Your task to perform on an android device: What is the recent news? Image 0: 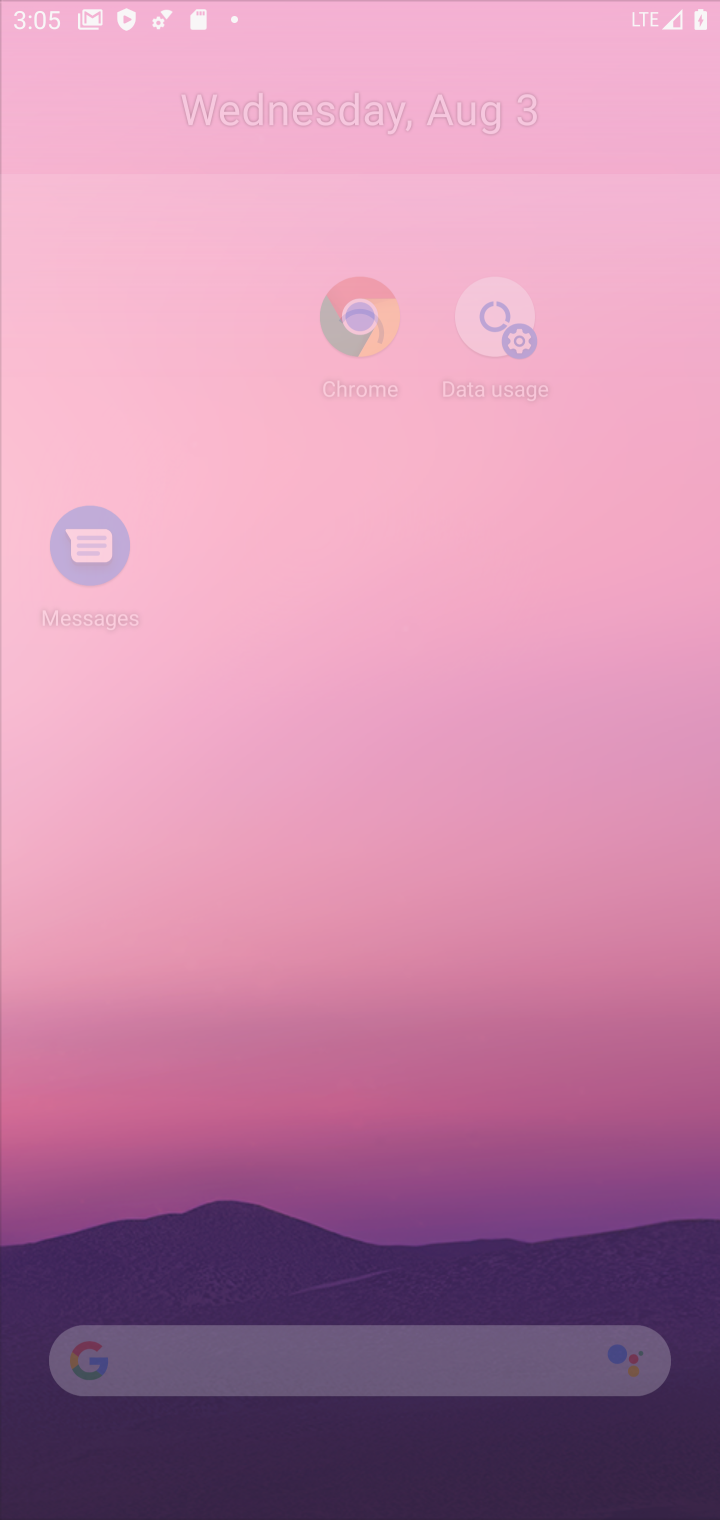
Step 0: press back button
Your task to perform on an android device: What is the recent news? Image 1: 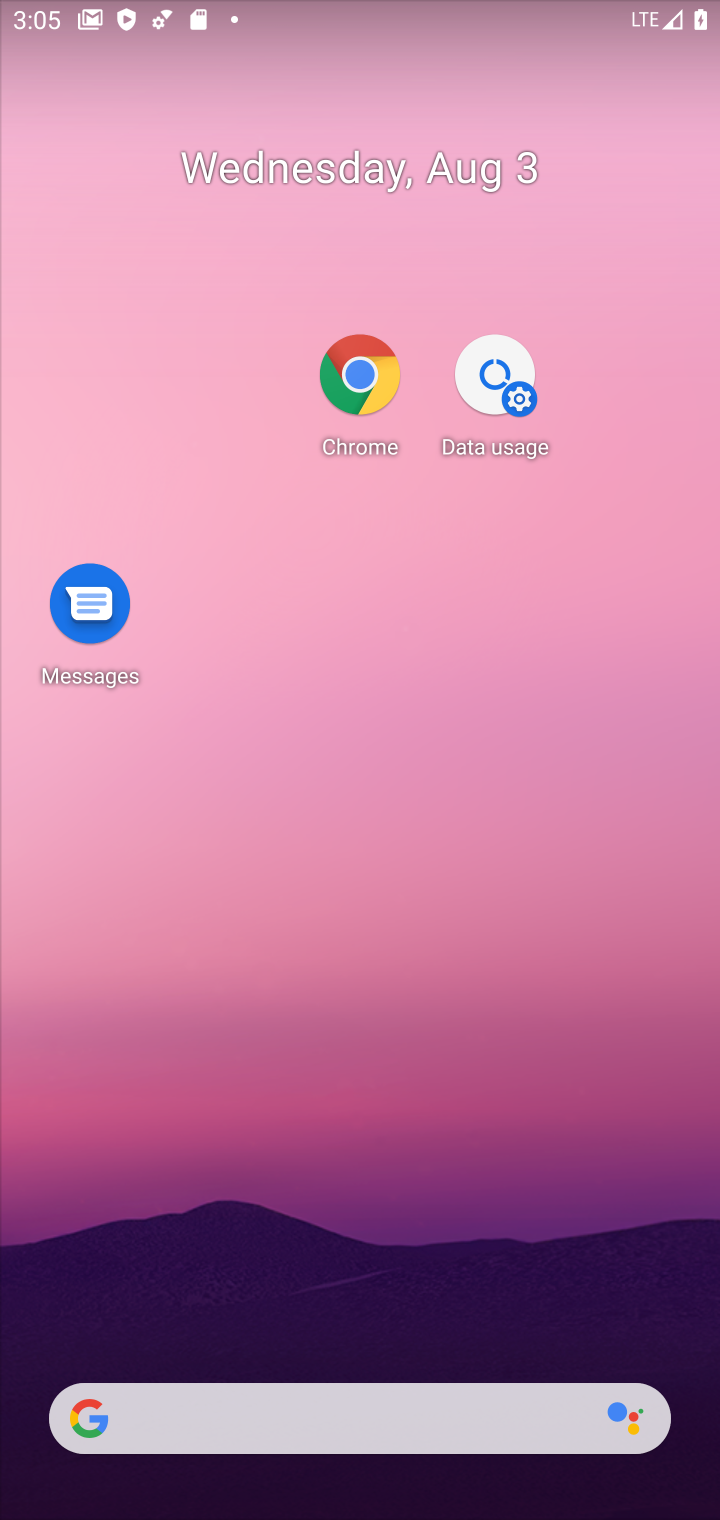
Step 1: drag from (279, 1172) to (215, 809)
Your task to perform on an android device: What is the recent news? Image 2: 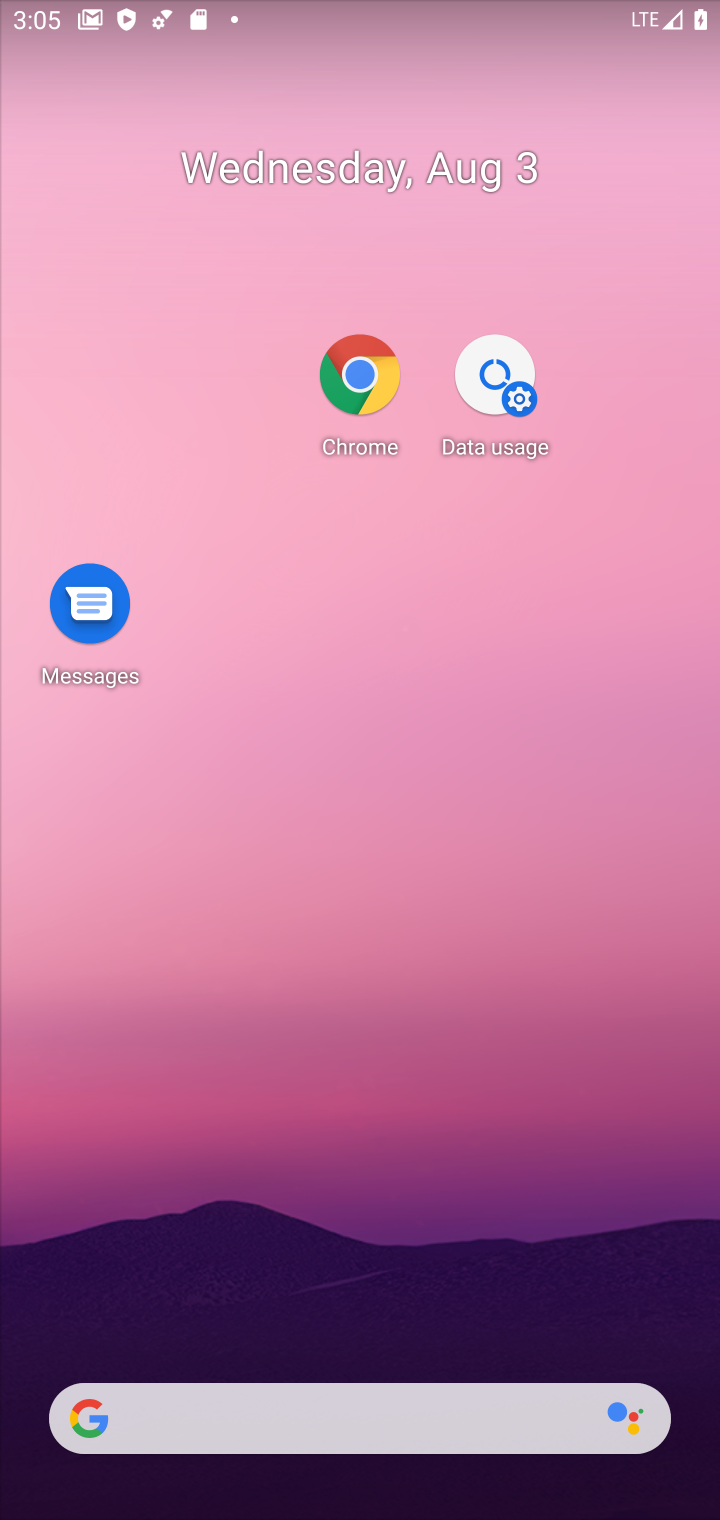
Step 2: drag from (304, 1319) to (134, 155)
Your task to perform on an android device: What is the recent news? Image 3: 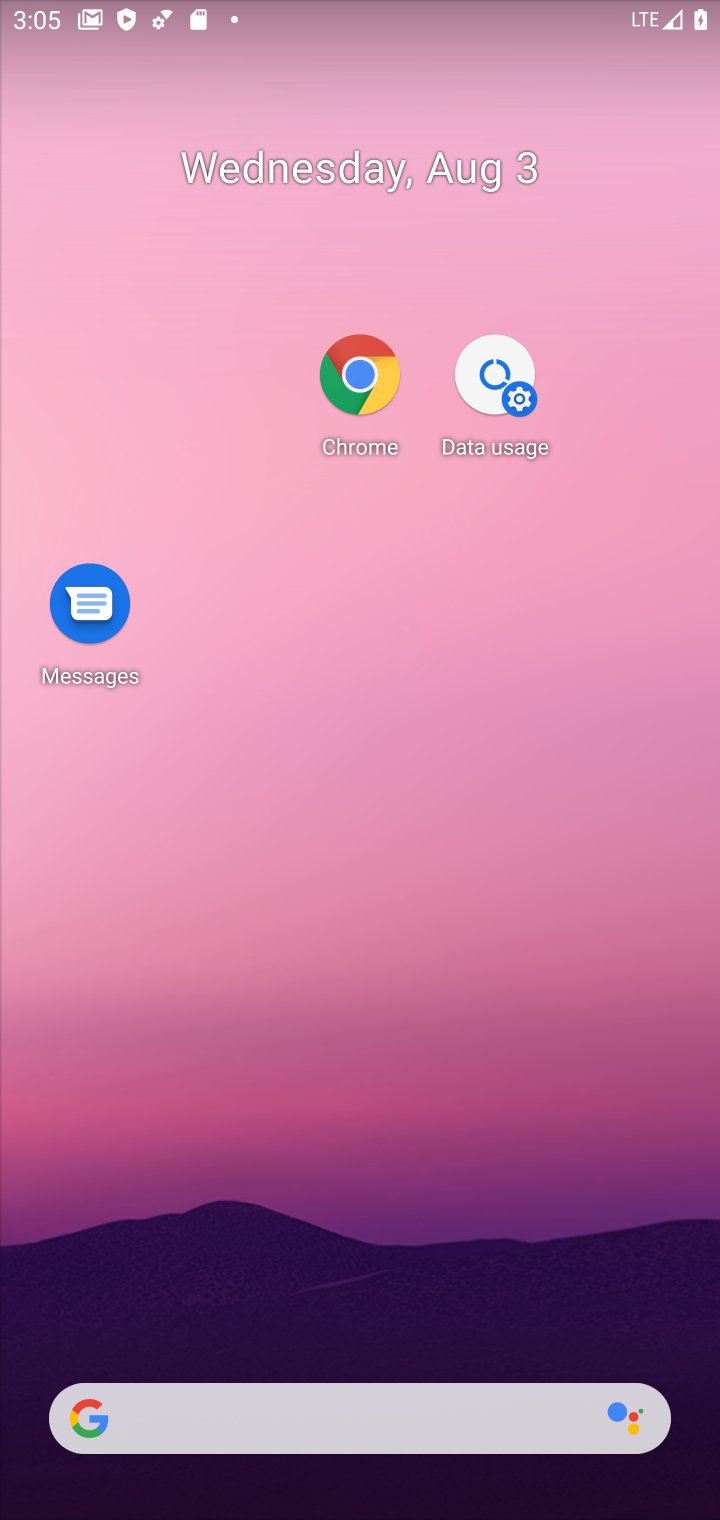
Step 3: drag from (319, 415) to (293, 242)
Your task to perform on an android device: What is the recent news? Image 4: 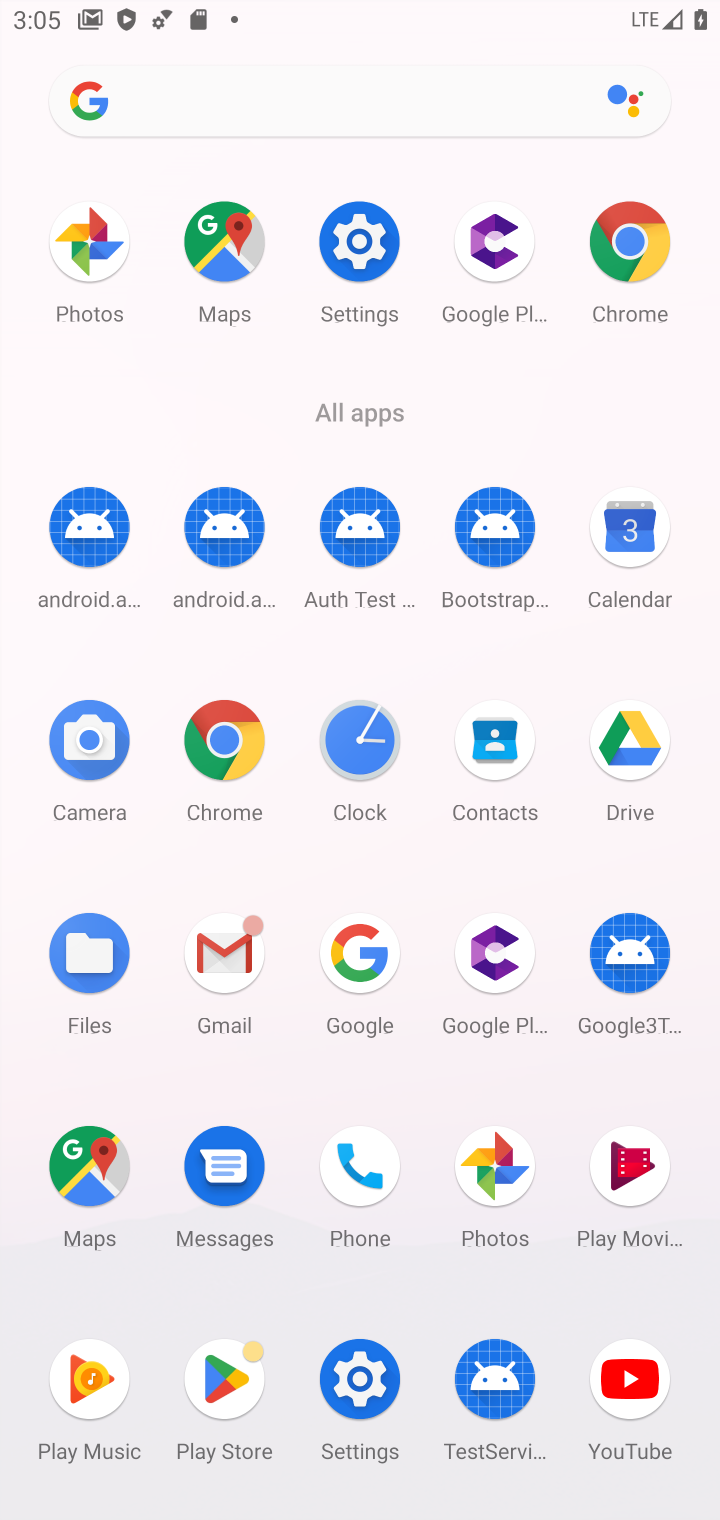
Step 4: click (599, 218)
Your task to perform on an android device: What is the recent news? Image 5: 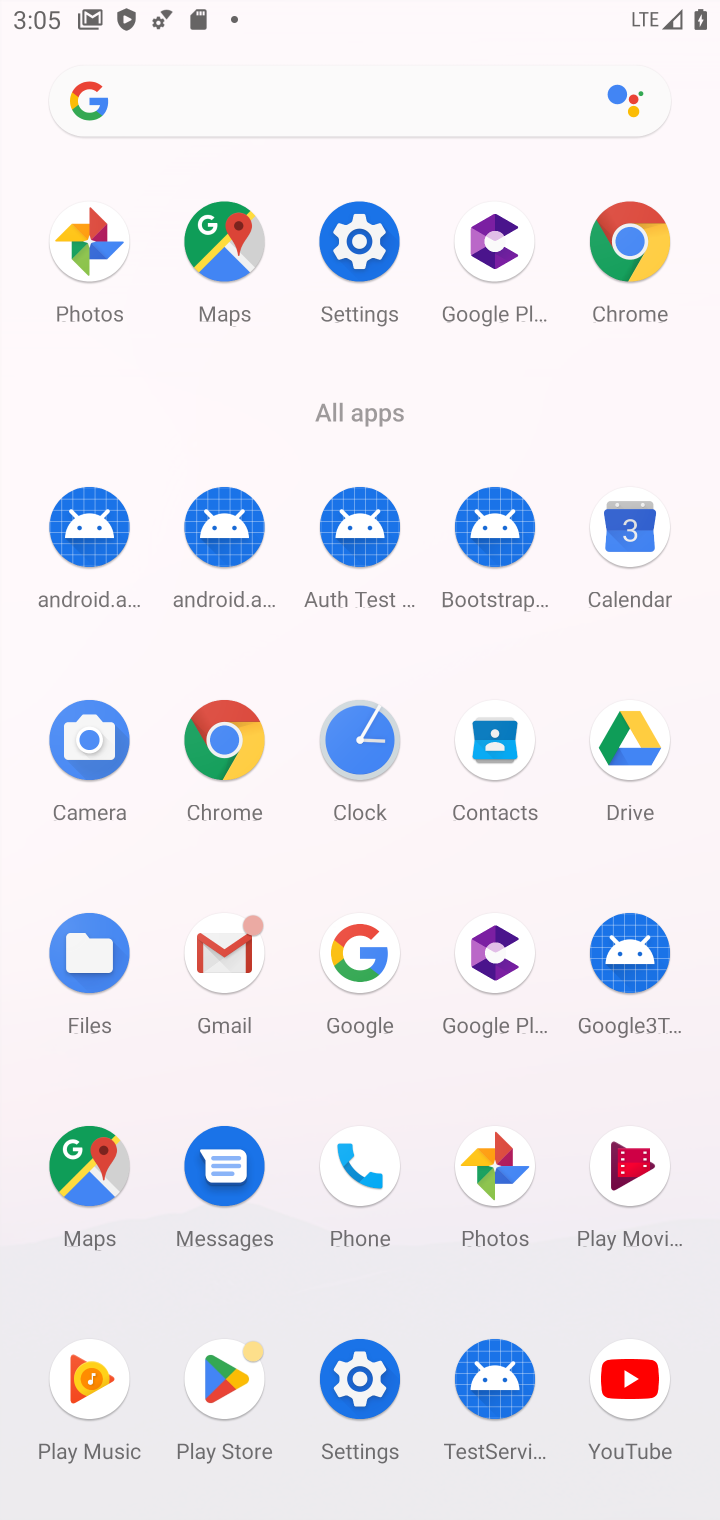
Step 5: click (606, 231)
Your task to perform on an android device: What is the recent news? Image 6: 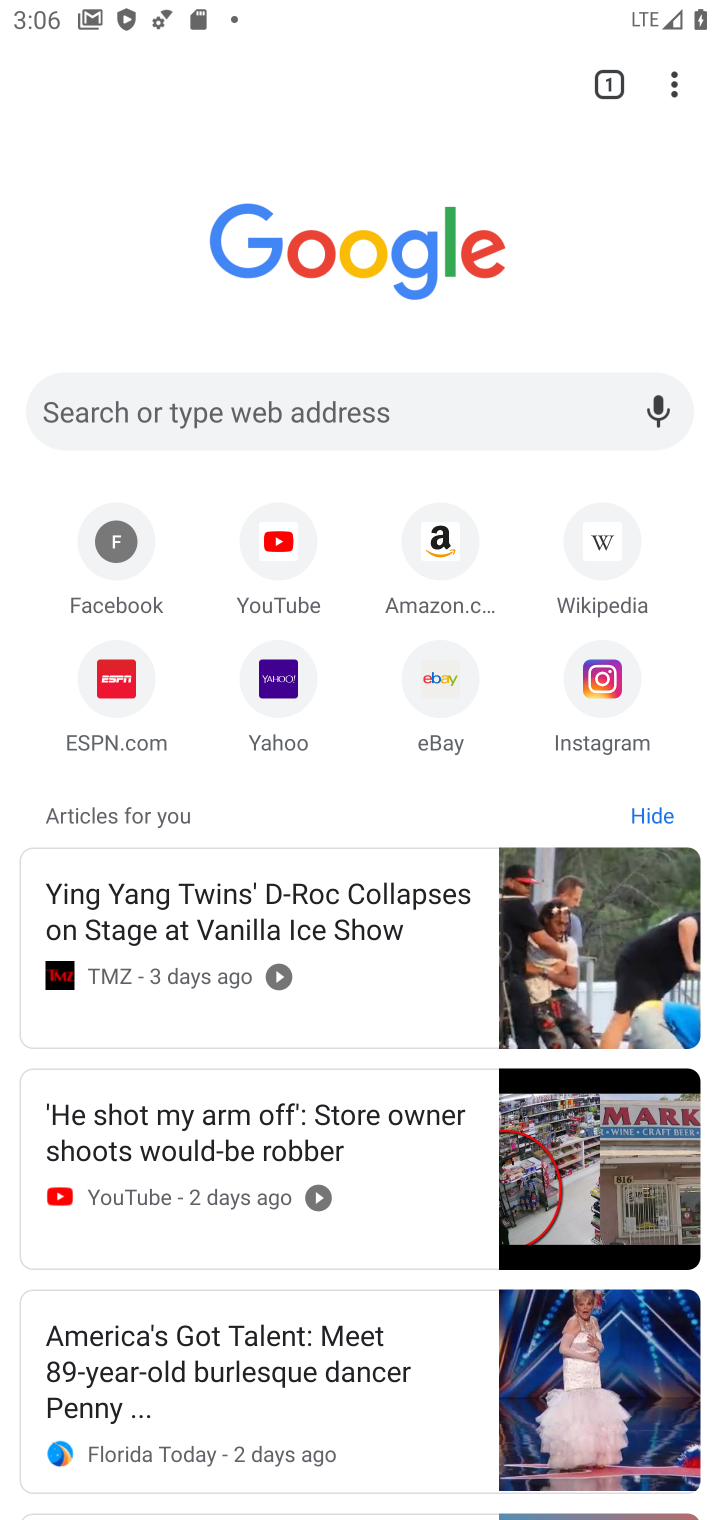
Step 6: task complete